Your task to perform on an android device: Open notification settings Image 0: 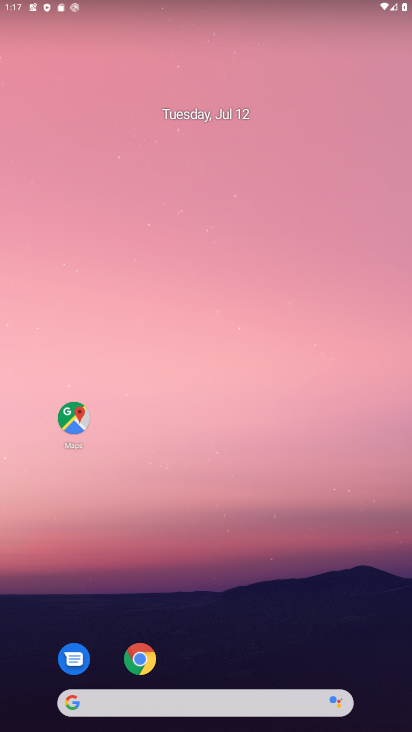
Step 0: drag from (240, 683) to (355, 168)
Your task to perform on an android device: Open notification settings Image 1: 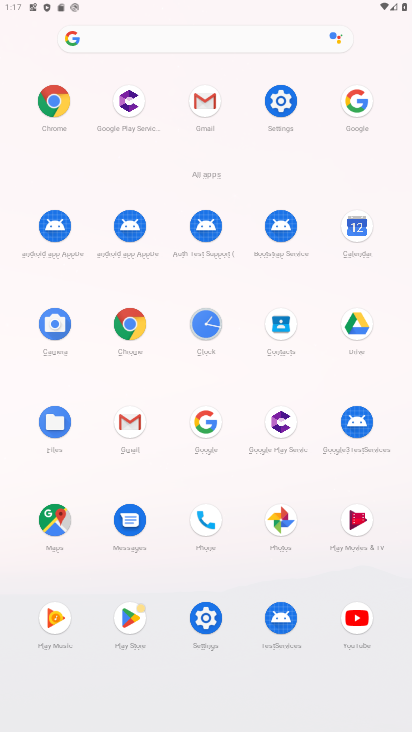
Step 1: click (198, 625)
Your task to perform on an android device: Open notification settings Image 2: 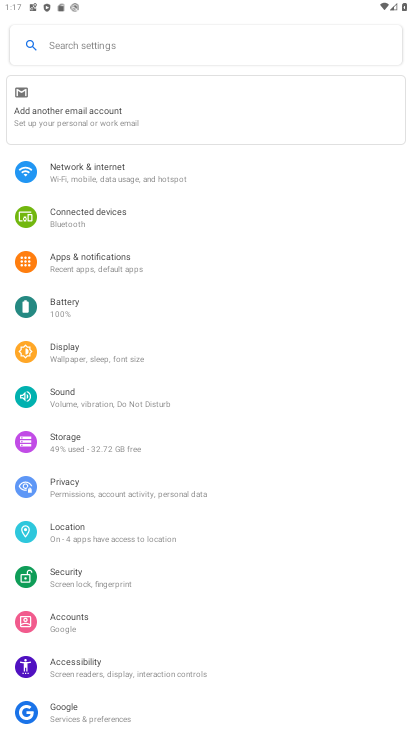
Step 2: click (120, 269)
Your task to perform on an android device: Open notification settings Image 3: 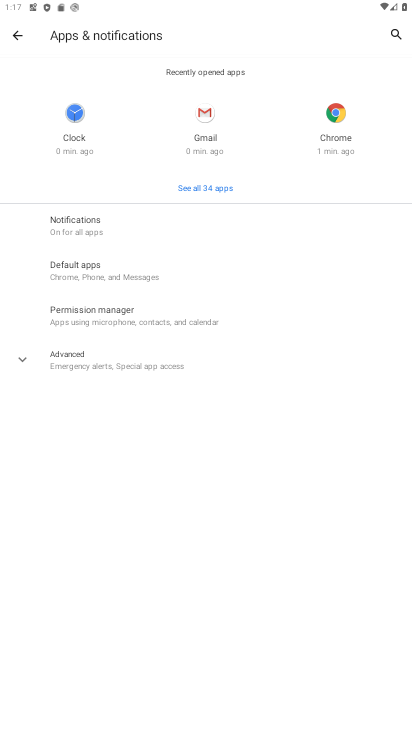
Step 3: click (106, 226)
Your task to perform on an android device: Open notification settings Image 4: 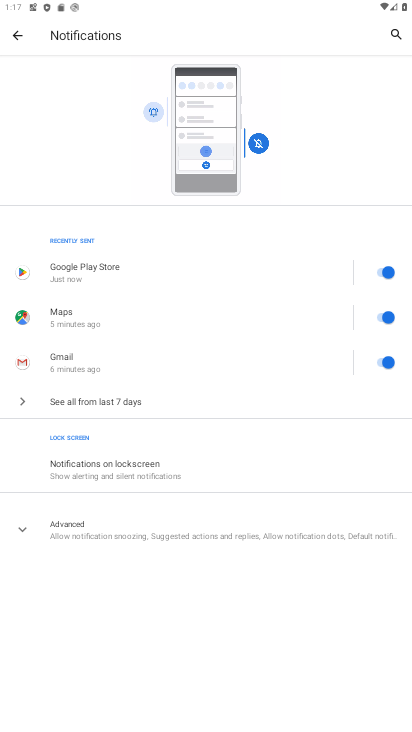
Step 4: task complete